Your task to perform on an android device: find snoozed emails in the gmail app Image 0: 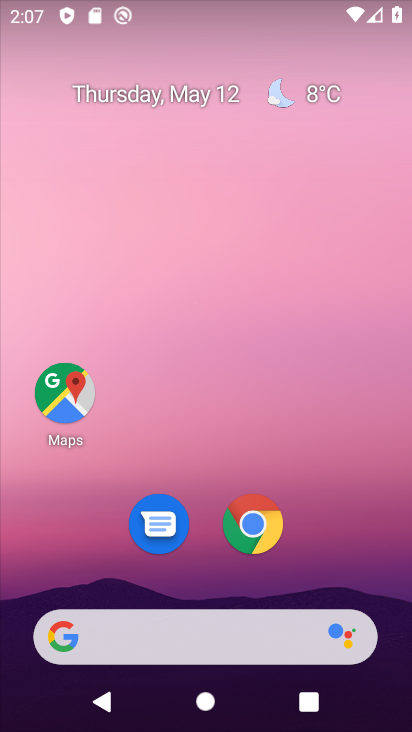
Step 0: drag from (285, 469) to (315, 56)
Your task to perform on an android device: find snoozed emails in the gmail app Image 1: 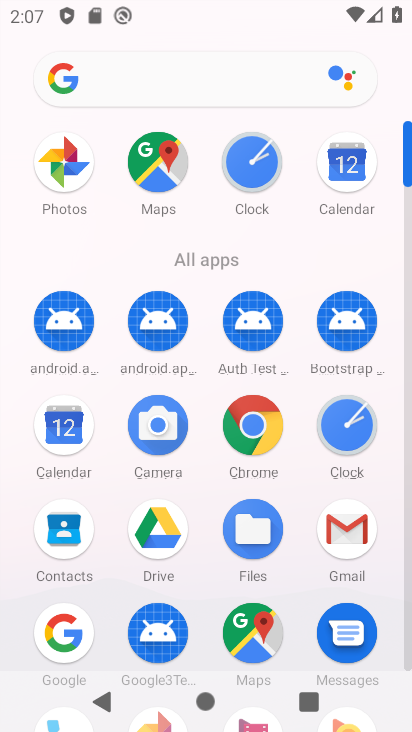
Step 1: click (341, 533)
Your task to perform on an android device: find snoozed emails in the gmail app Image 2: 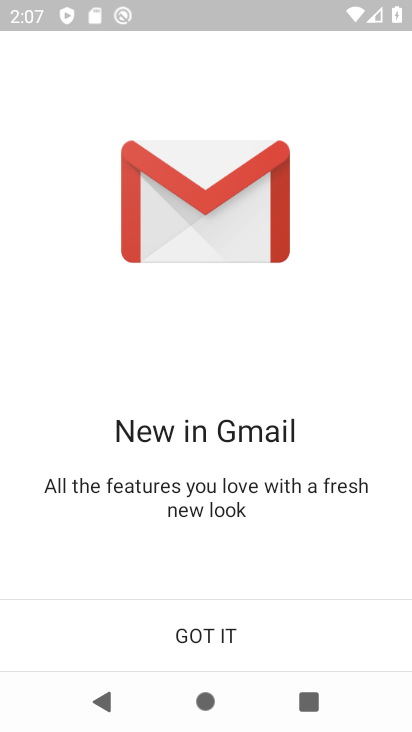
Step 2: click (229, 621)
Your task to perform on an android device: find snoozed emails in the gmail app Image 3: 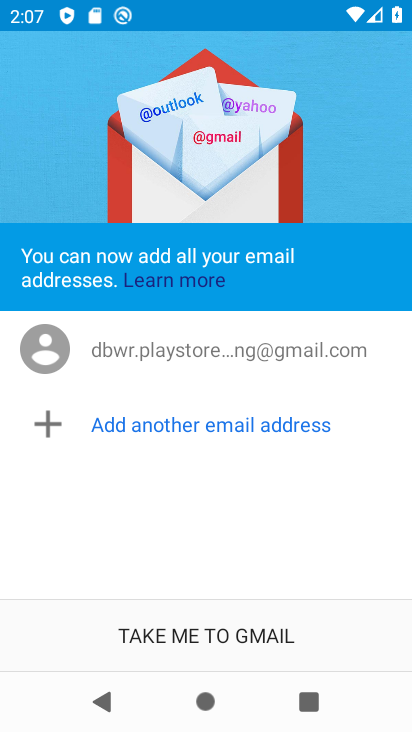
Step 3: click (232, 621)
Your task to perform on an android device: find snoozed emails in the gmail app Image 4: 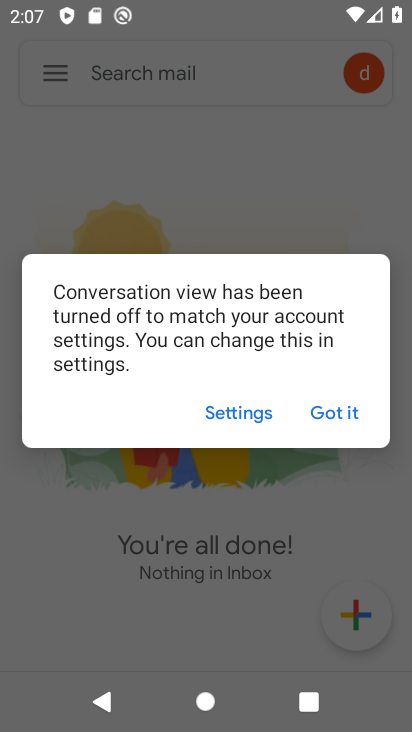
Step 4: click (336, 408)
Your task to perform on an android device: find snoozed emails in the gmail app Image 5: 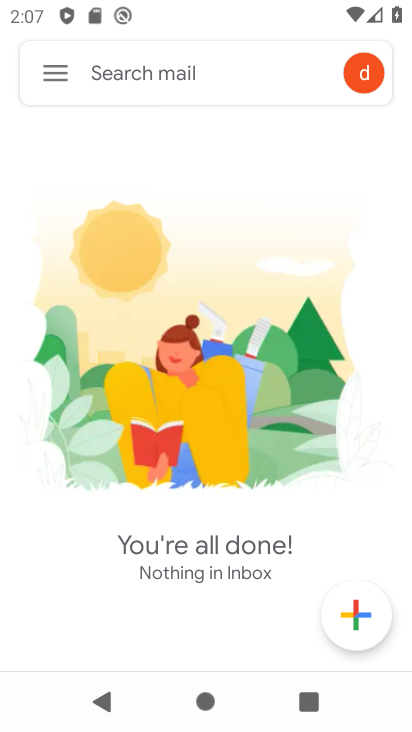
Step 5: click (54, 78)
Your task to perform on an android device: find snoozed emails in the gmail app Image 6: 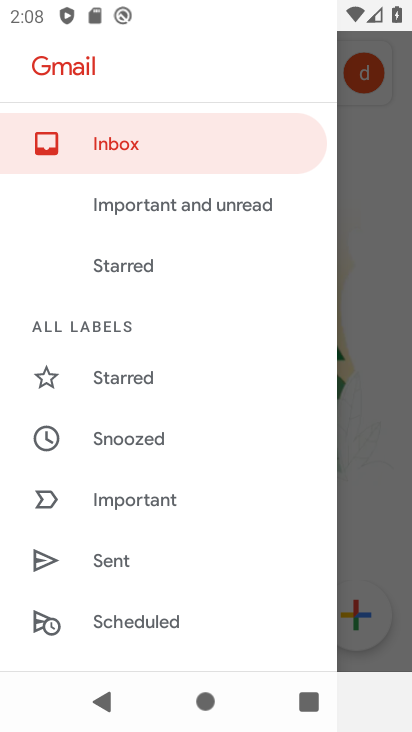
Step 6: click (131, 441)
Your task to perform on an android device: find snoozed emails in the gmail app Image 7: 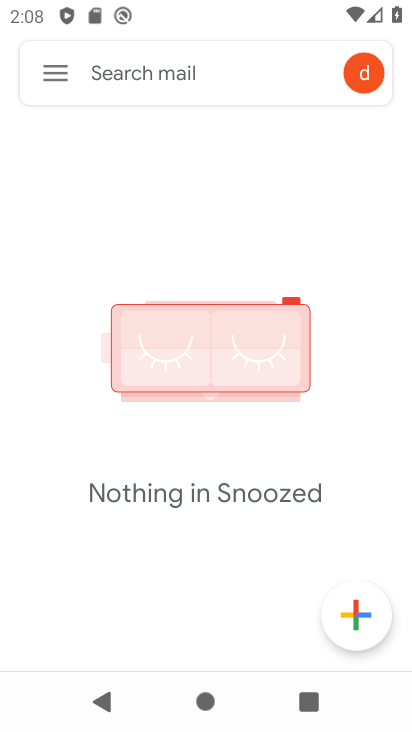
Step 7: task complete